Your task to perform on an android device: What's the weather going to be this weekend? Image 0: 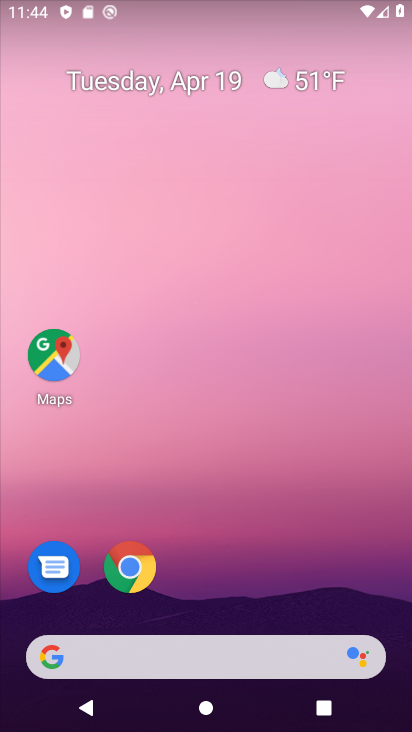
Step 0: click (302, 75)
Your task to perform on an android device: What's the weather going to be this weekend? Image 1: 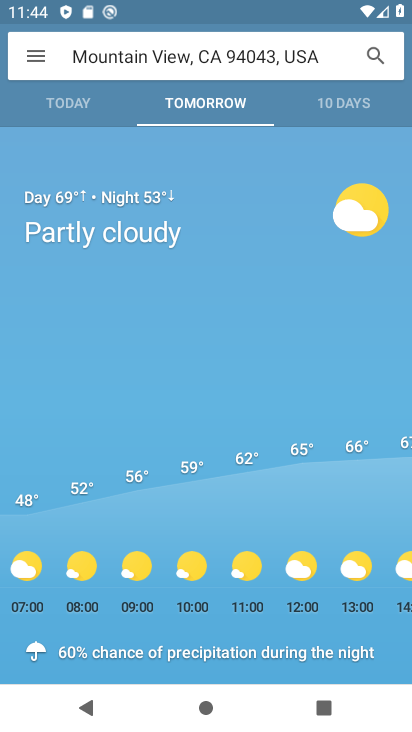
Step 1: click (337, 106)
Your task to perform on an android device: What's the weather going to be this weekend? Image 2: 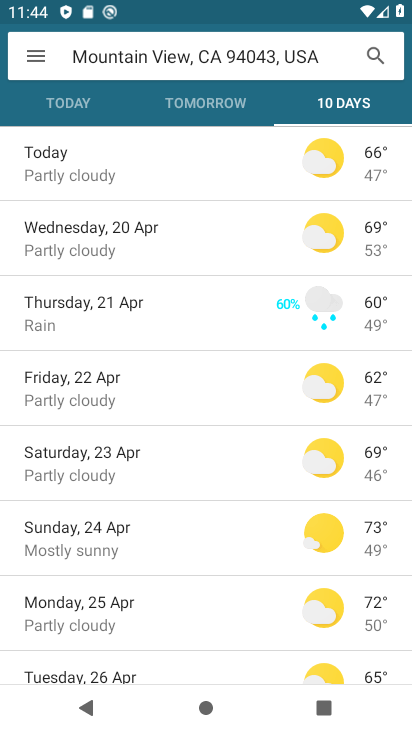
Step 2: task complete